Your task to perform on an android device: change notification settings in the gmail app Image 0: 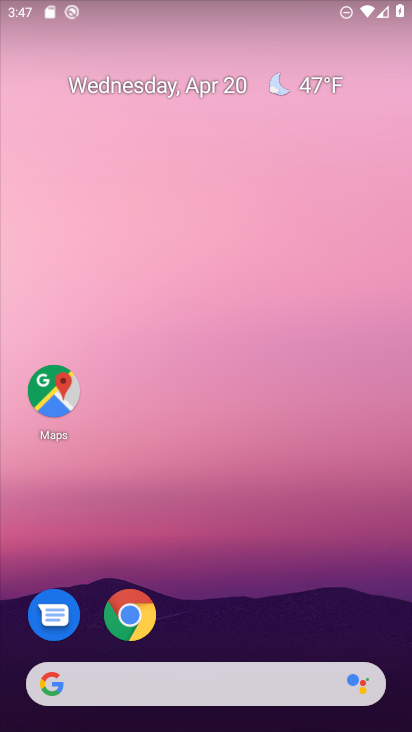
Step 0: drag from (174, 390) to (238, 79)
Your task to perform on an android device: change notification settings in the gmail app Image 1: 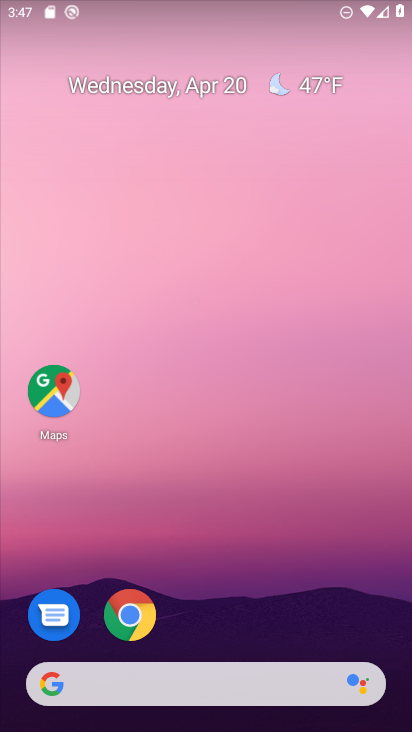
Step 1: drag from (249, 539) to (240, 86)
Your task to perform on an android device: change notification settings in the gmail app Image 2: 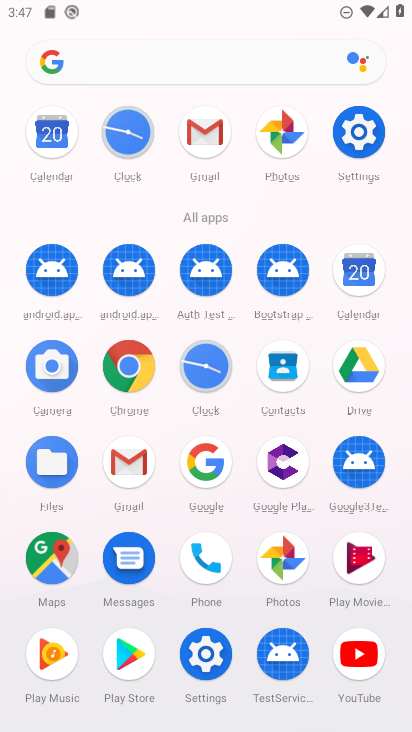
Step 2: click (127, 467)
Your task to perform on an android device: change notification settings in the gmail app Image 3: 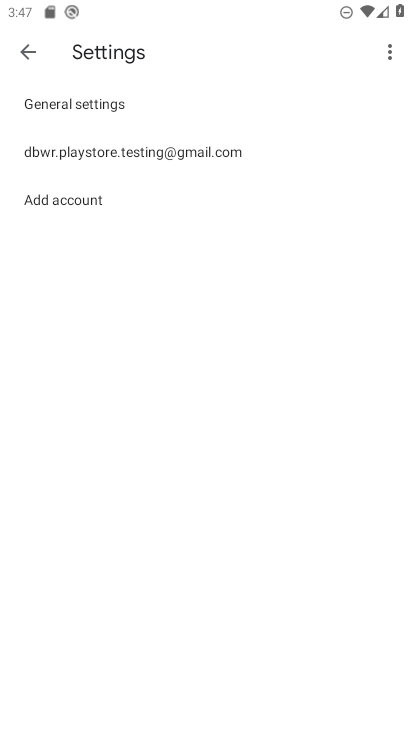
Step 3: click (136, 157)
Your task to perform on an android device: change notification settings in the gmail app Image 4: 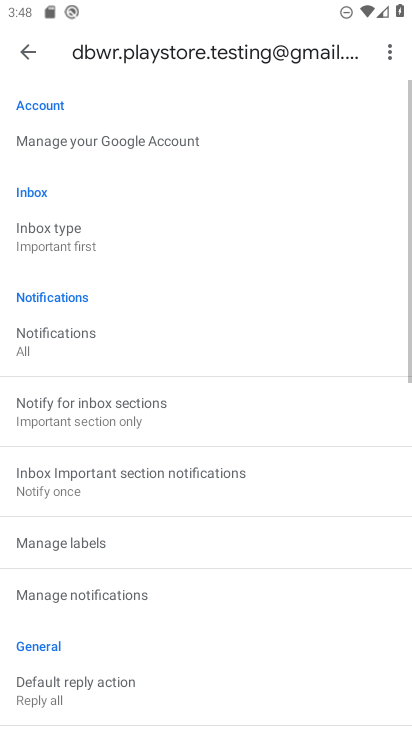
Step 4: click (86, 351)
Your task to perform on an android device: change notification settings in the gmail app Image 5: 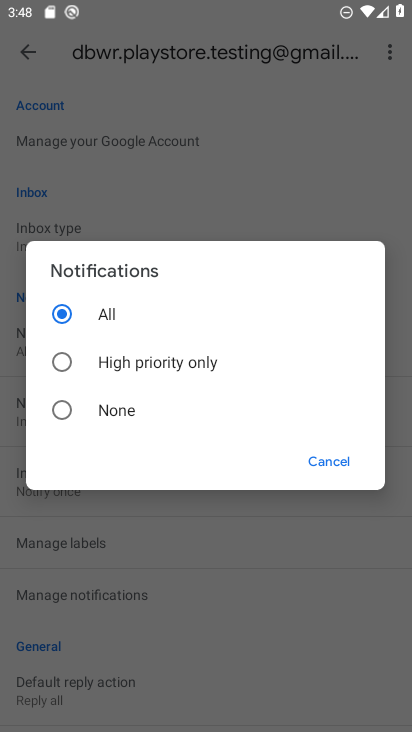
Step 5: click (103, 374)
Your task to perform on an android device: change notification settings in the gmail app Image 6: 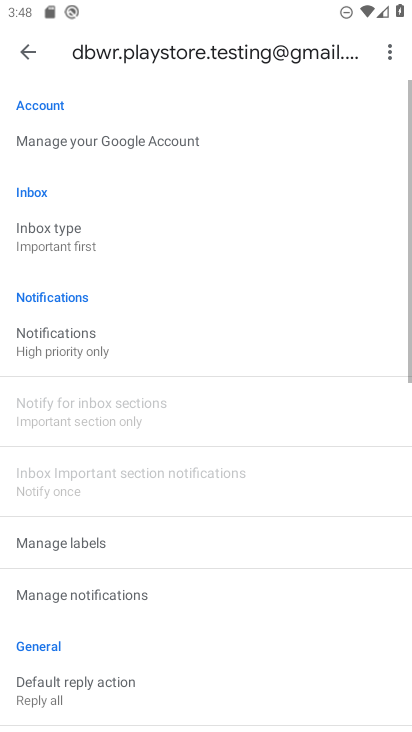
Step 6: task complete